Your task to perform on an android device: Go to location settings Image 0: 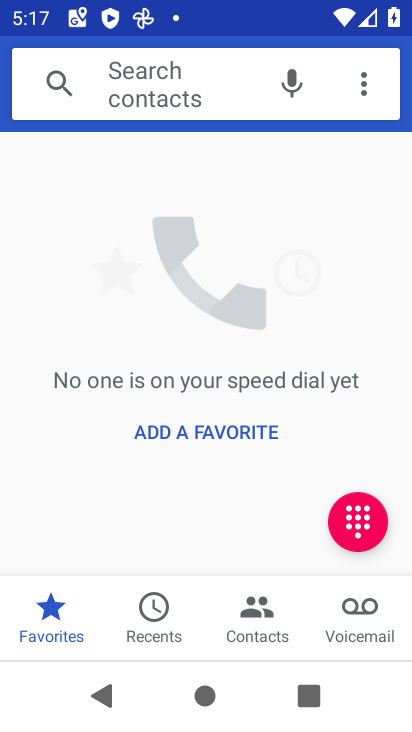
Step 0: press home button
Your task to perform on an android device: Go to location settings Image 1: 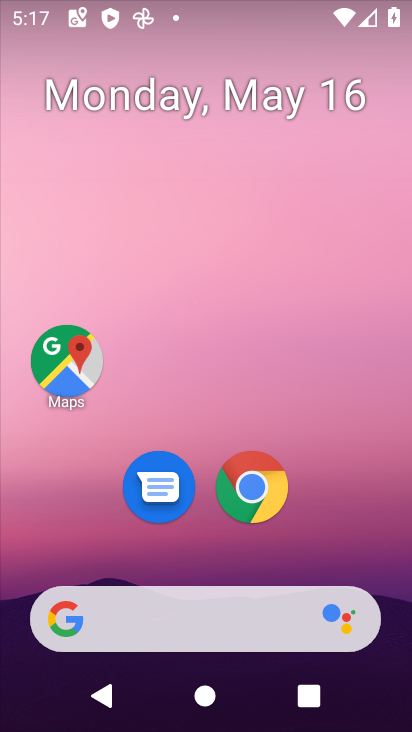
Step 1: drag from (391, 598) to (359, 34)
Your task to perform on an android device: Go to location settings Image 2: 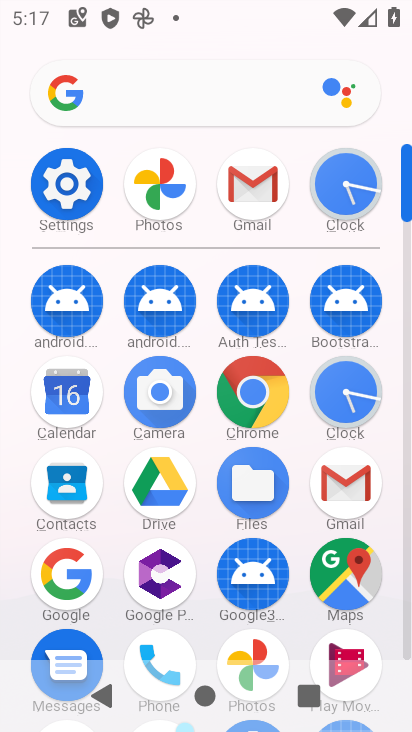
Step 2: click (408, 644)
Your task to perform on an android device: Go to location settings Image 3: 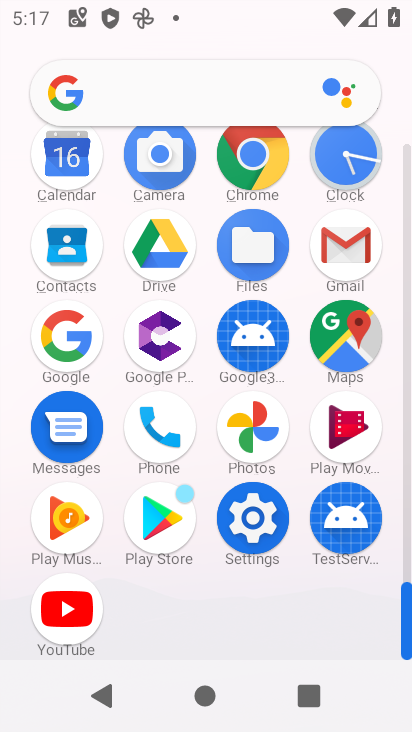
Step 3: click (253, 517)
Your task to perform on an android device: Go to location settings Image 4: 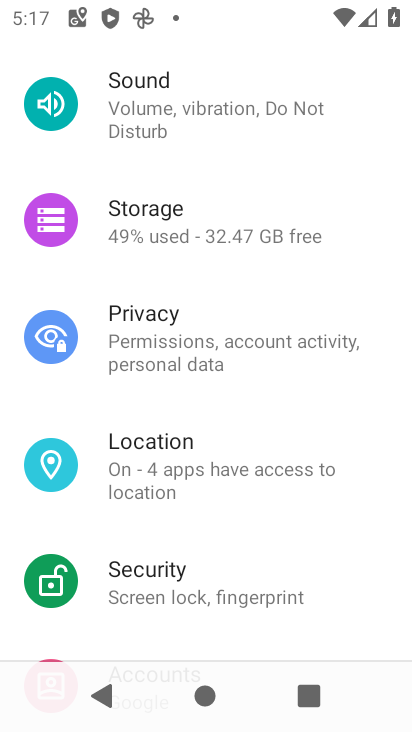
Step 4: click (160, 460)
Your task to perform on an android device: Go to location settings Image 5: 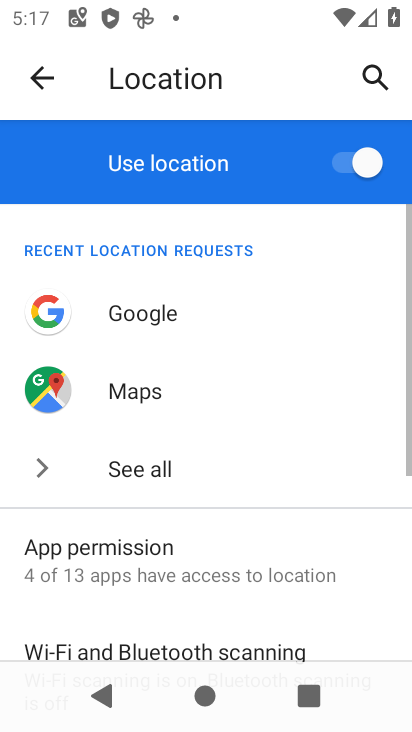
Step 5: drag from (322, 626) to (314, 391)
Your task to perform on an android device: Go to location settings Image 6: 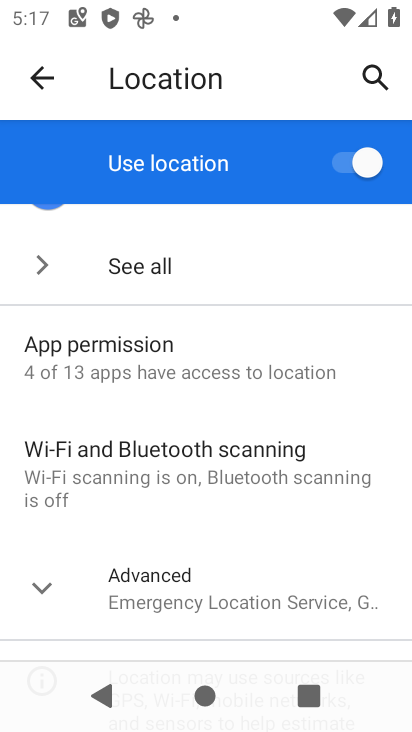
Step 6: click (35, 586)
Your task to perform on an android device: Go to location settings Image 7: 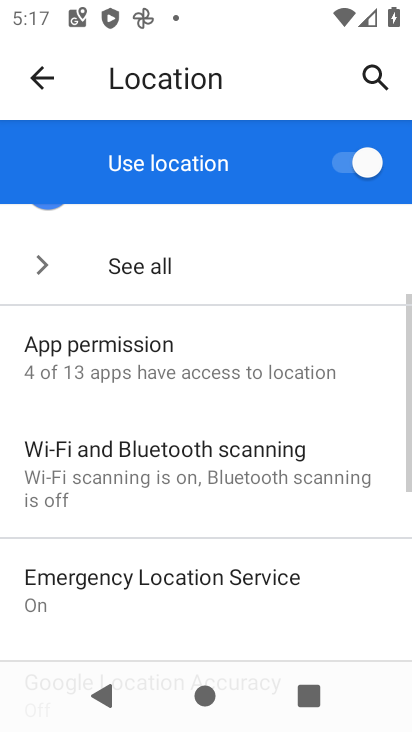
Step 7: task complete